Your task to perform on an android device: Open calendar and show me the first week of next month Image 0: 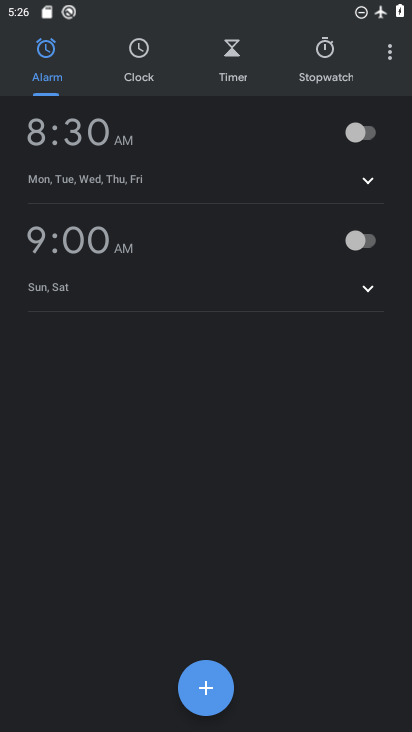
Step 0: press home button
Your task to perform on an android device: Open calendar and show me the first week of next month Image 1: 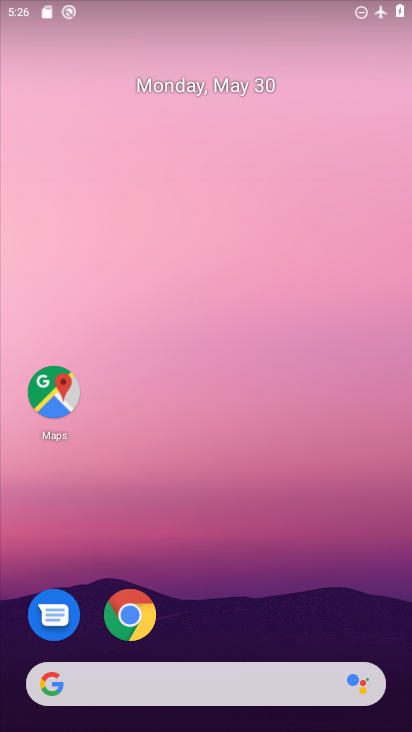
Step 1: click (160, 91)
Your task to perform on an android device: Open calendar and show me the first week of next month Image 2: 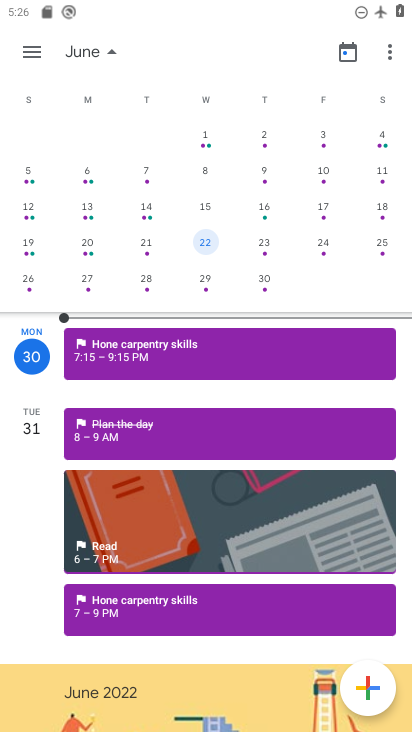
Step 2: click (209, 133)
Your task to perform on an android device: Open calendar and show me the first week of next month Image 3: 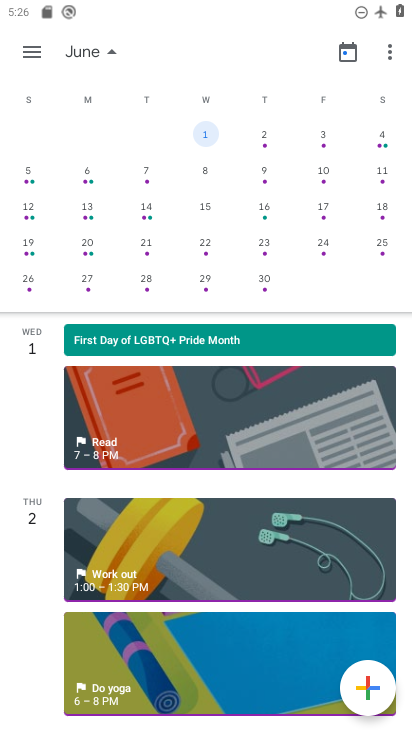
Step 3: task complete